Your task to perform on an android device: delete the emails in spam in the gmail app Image 0: 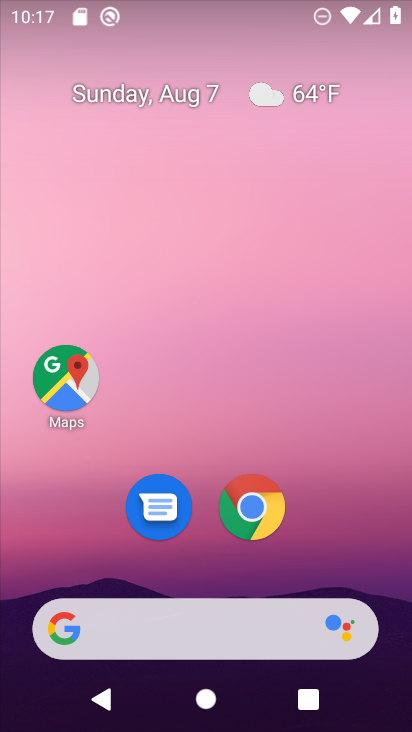
Step 0: drag from (346, 493) to (338, 0)
Your task to perform on an android device: delete the emails in spam in the gmail app Image 1: 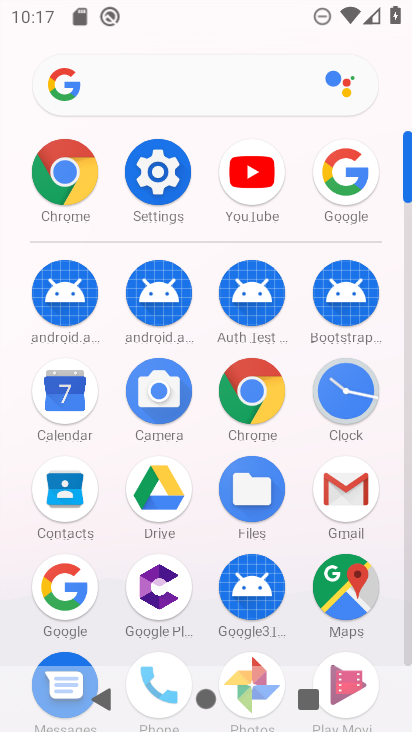
Step 1: click (337, 496)
Your task to perform on an android device: delete the emails in spam in the gmail app Image 2: 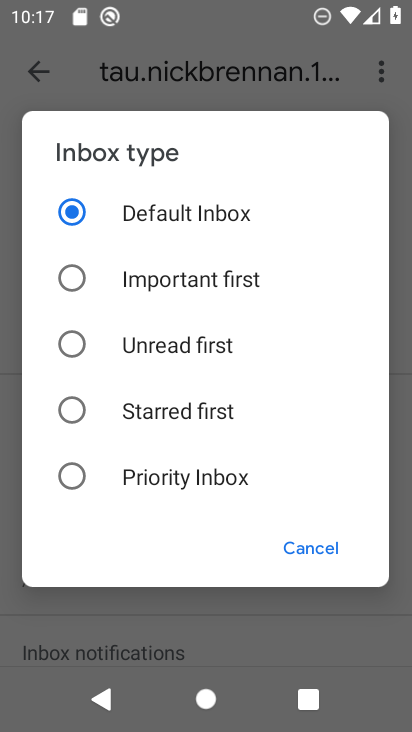
Step 2: click (321, 546)
Your task to perform on an android device: delete the emails in spam in the gmail app Image 3: 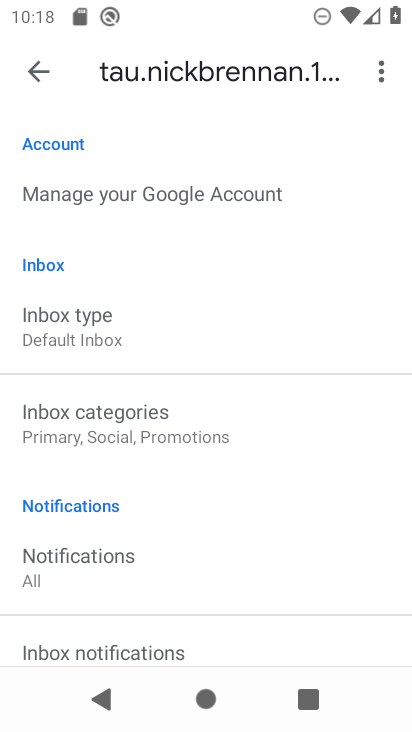
Step 3: click (44, 75)
Your task to perform on an android device: delete the emails in spam in the gmail app Image 4: 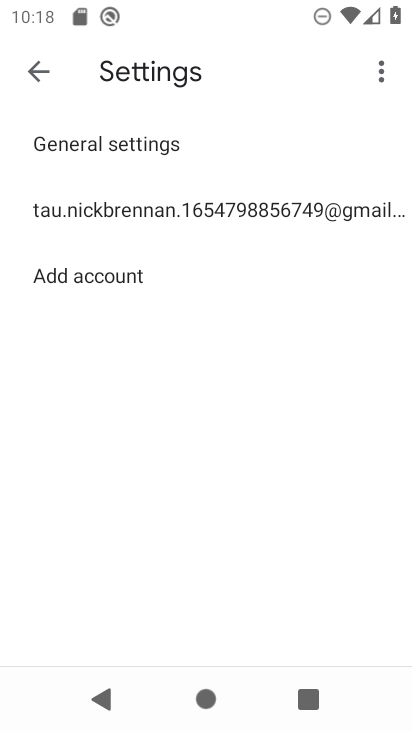
Step 4: click (44, 75)
Your task to perform on an android device: delete the emails in spam in the gmail app Image 5: 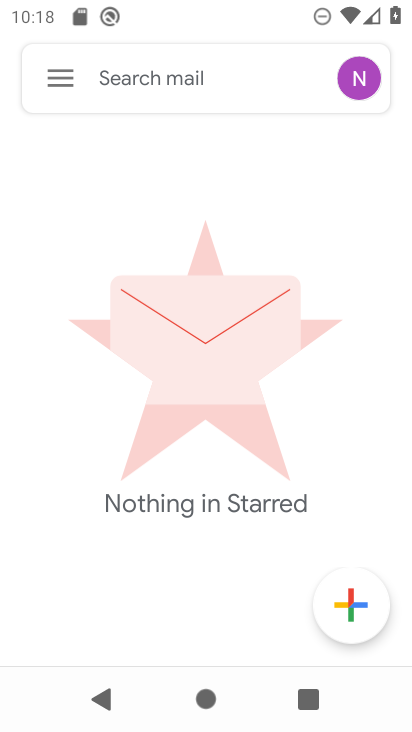
Step 5: click (44, 75)
Your task to perform on an android device: delete the emails in spam in the gmail app Image 6: 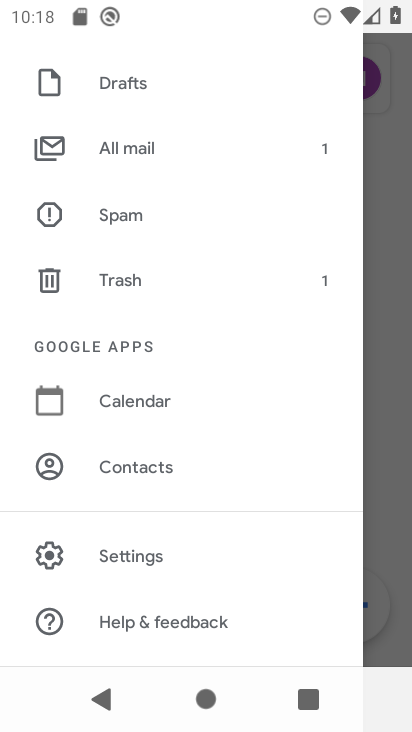
Step 6: click (119, 222)
Your task to perform on an android device: delete the emails in spam in the gmail app Image 7: 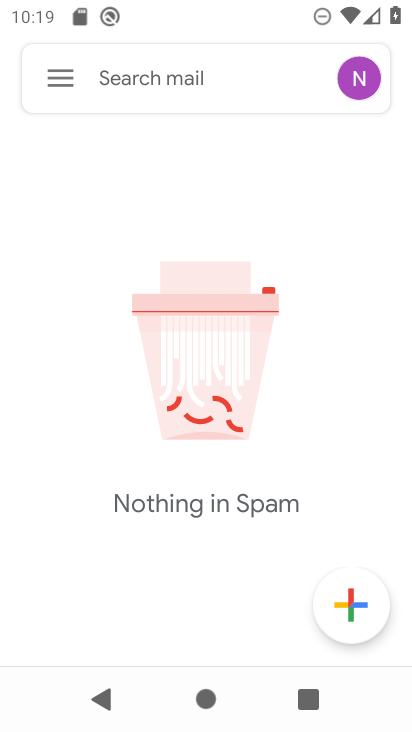
Step 7: task complete